Your task to perform on an android device: turn off data saver in the chrome app Image 0: 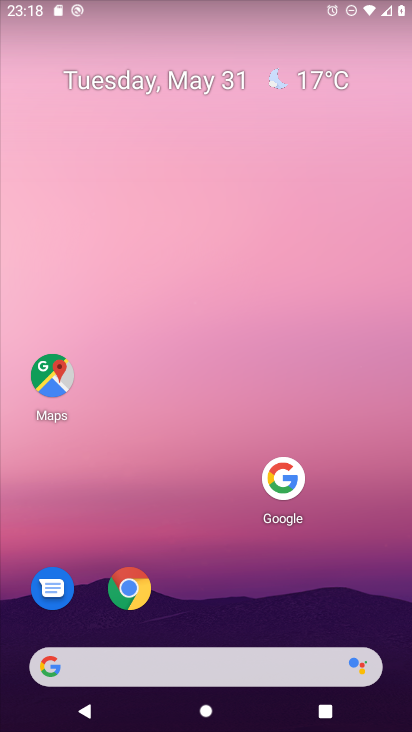
Step 0: press home button
Your task to perform on an android device: turn off data saver in the chrome app Image 1: 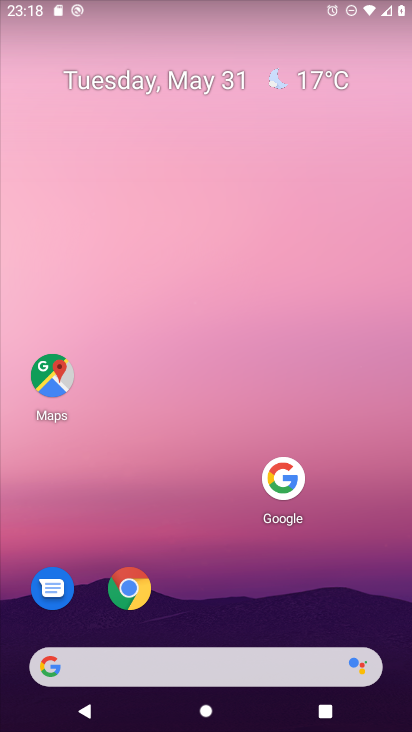
Step 1: click (141, 592)
Your task to perform on an android device: turn off data saver in the chrome app Image 2: 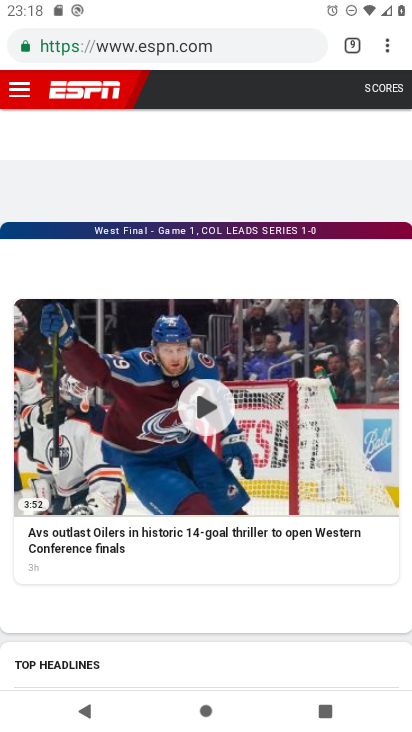
Step 2: drag from (387, 43) to (288, 543)
Your task to perform on an android device: turn off data saver in the chrome app Image 3: 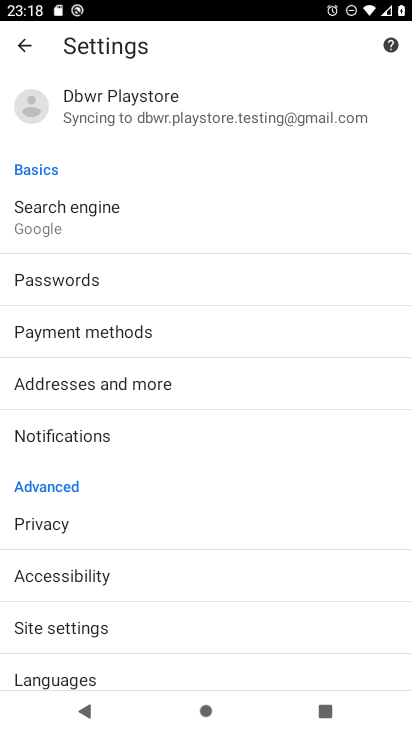
Step 3: drag from (131, 548) to (267, 253)
Your task to perform on an android device: turn off data saver in the chrome app Image 4: 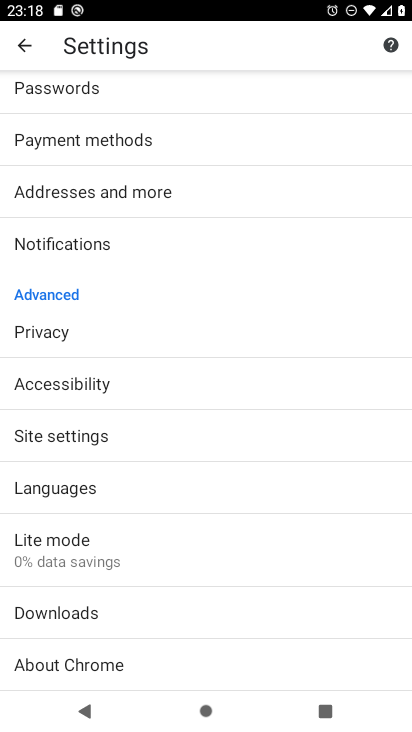
Step 4: click (87, 555)
Your task to perform on an android device: turn off data saver in the chrome app Image 5: 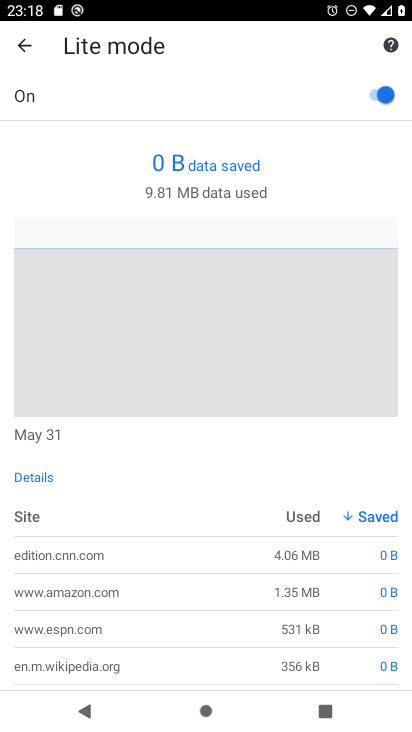
Step 5: click (377, 97)
Your task to perform on an android device: turn off data saver in the chrome app Image 6: 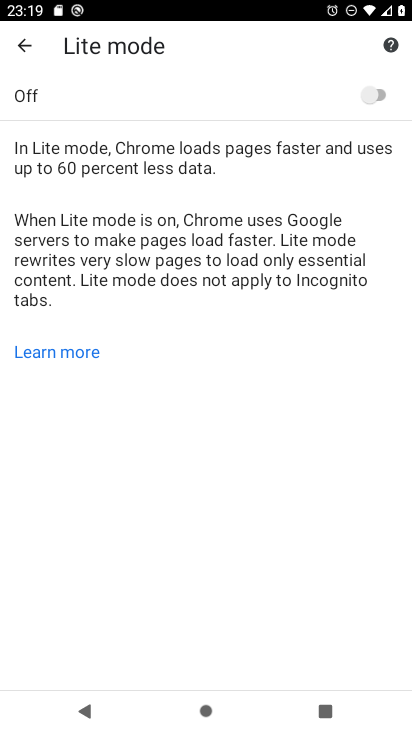
Step 6: task complete